Your task to perform on an android device: turn pop-ups on in chrome Image 0: 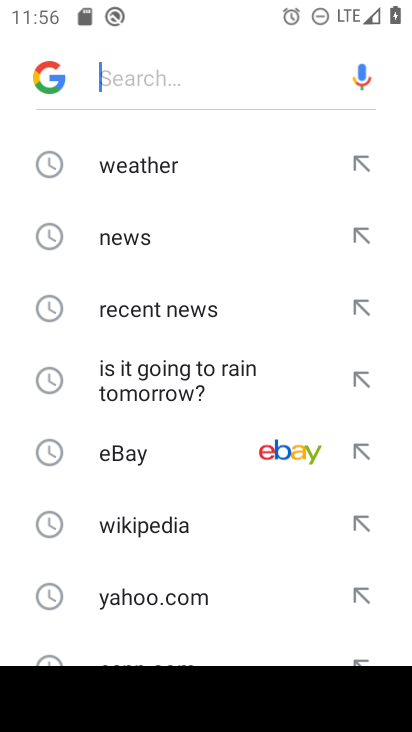
Step 0: press home button
Your task to perform on an android device: turn pop-ups on in chrome Image 1: 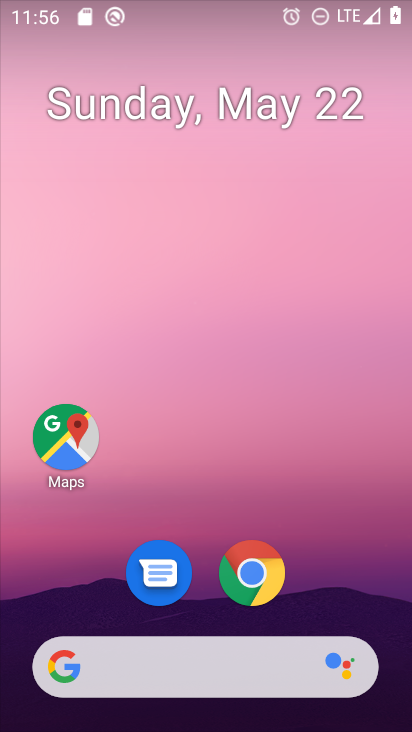
Step 1: click (251, 565)
Your task to perform on an android device: turn pop-ups on in chrome Image 2: 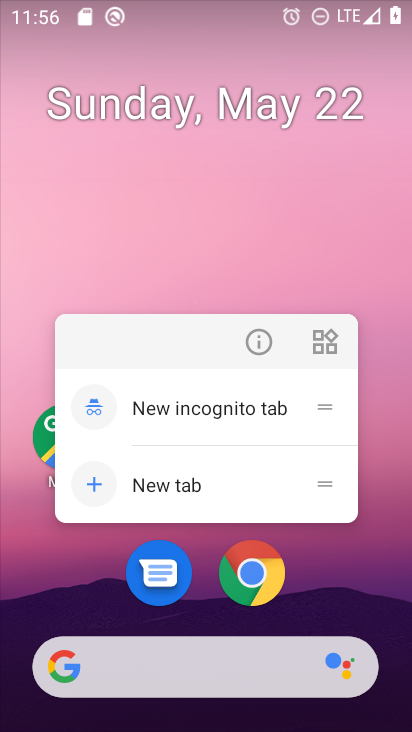
Step 2: click (244, 568)
Your task to perform on an android device: turn pop-ups on in chrome Image 3: 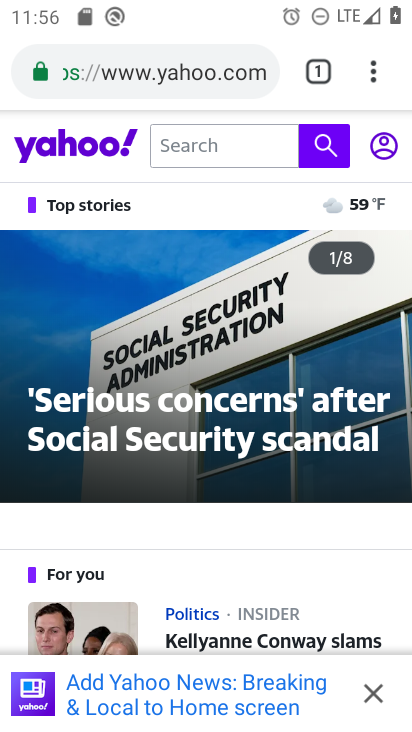
Step 3: click (371, 68)
Your task to perform on an android device: turn pop-ups on in chrome Image 4: 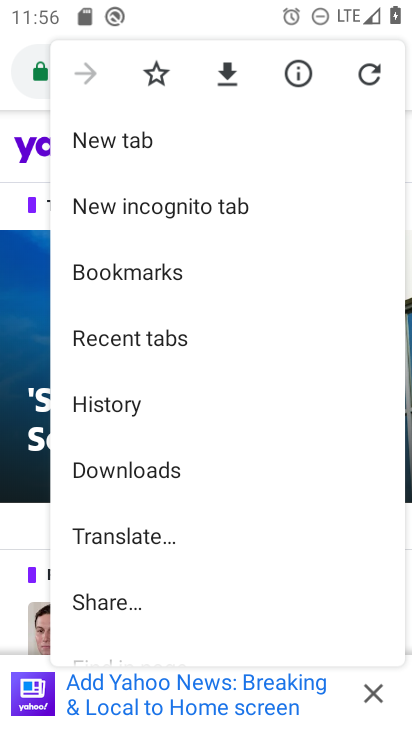
Step 4: drag from (164, 577) to (212, 216)
Your task to perform on an android device: turn pop-ups on in chrome Image 5: 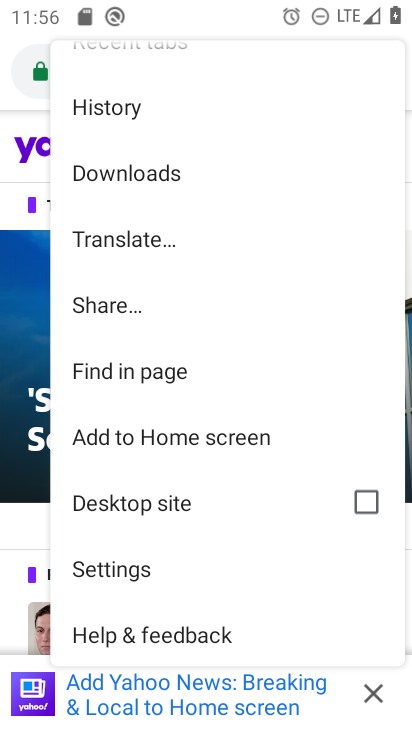
Step 5: click (134, 570)
Your task to perform on an android device: turn pop-ups on in chrome Image 6: 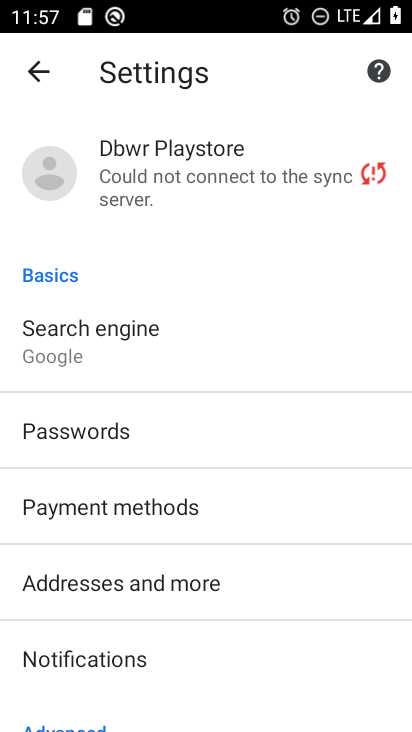
Step 6: drag from (167, 681) to (241, 286)
Your task to perform on an android device: turn pop-ups on in chrome Image 7: 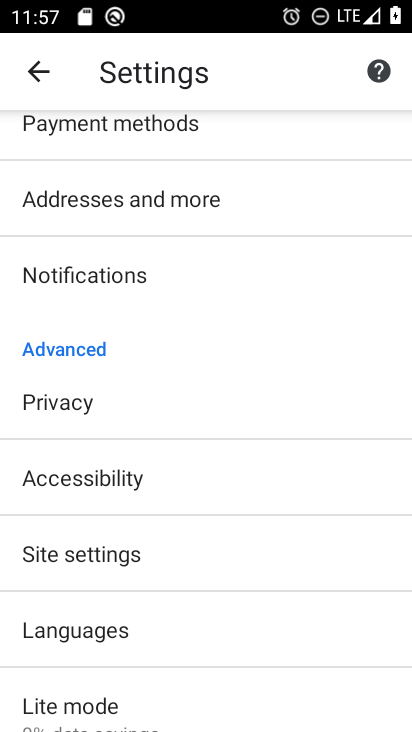
Step 7: click (92, 571)
Your task to perform on an android device: turn pop-ups on in chrome Image 8: 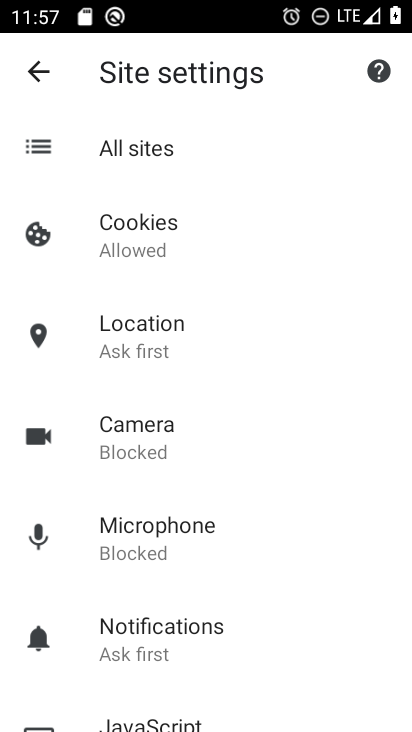
Step 8: drag from (182, 678) to (234, 468)
Your task to perform on an android device: turn pop-ups on in chrome Image 9: 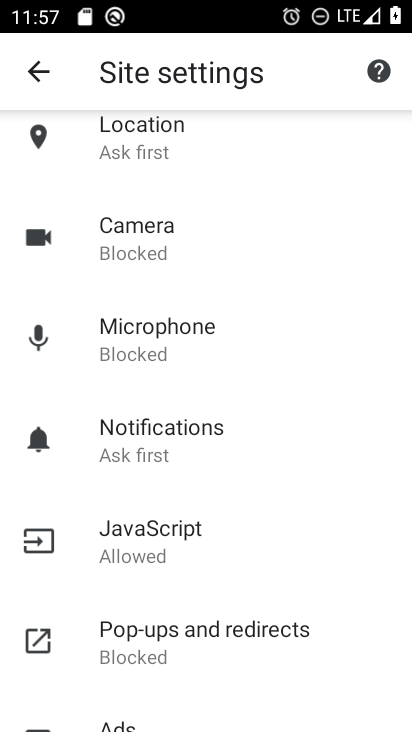
Step 9: click (184, 641)
Your task to perform on an android device: turn pop-ups on in chrome Image 10: 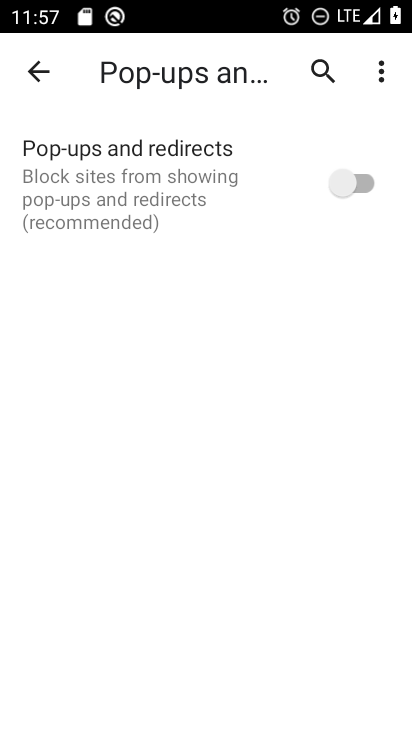
Step 10: click (359, 199)
Your task to perform on an android device: turn pop-ups on in chrome Image 11: 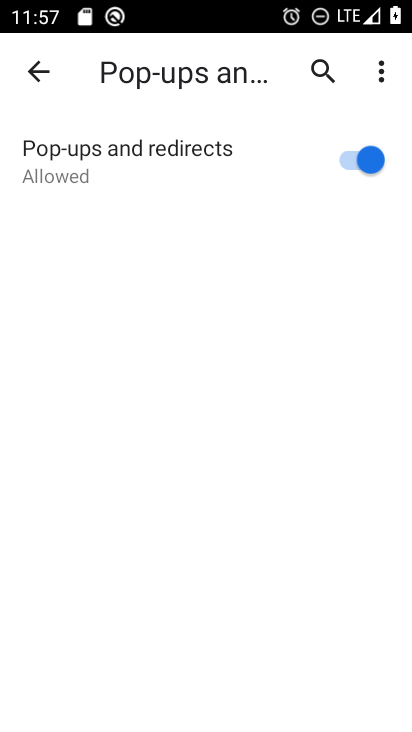
Step 11: task complete